Your task to perform on an android device: Turn off the flashlight Image 0: 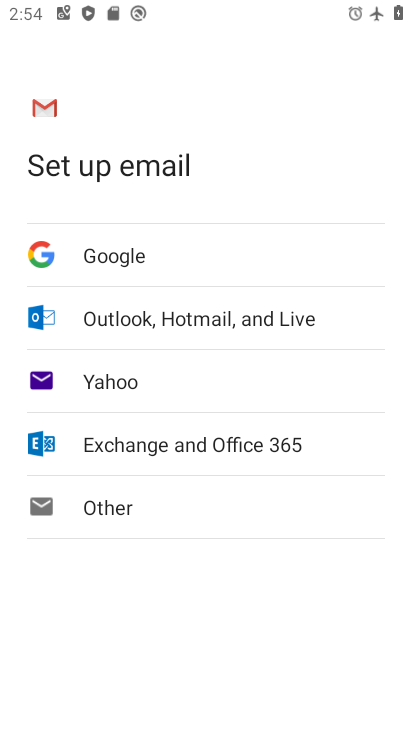
Step 0: press back button
Your task to perform on an android device: Turn off the flashlight Image 1: 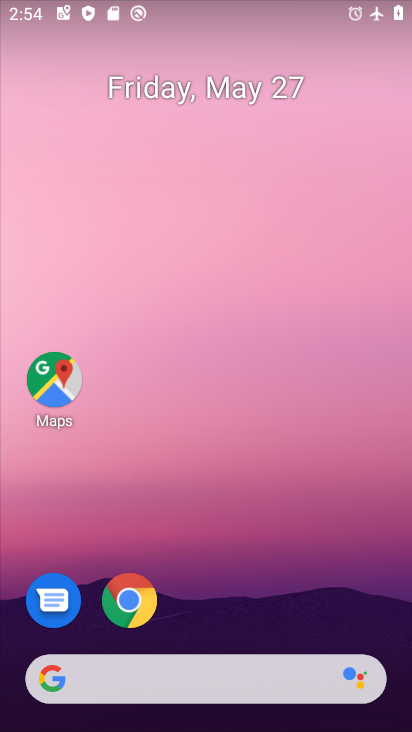
Step 1: drag from (284, 566) to (253, 45)
Your task to perform on an android device: Turn off the flashlight Image 2: 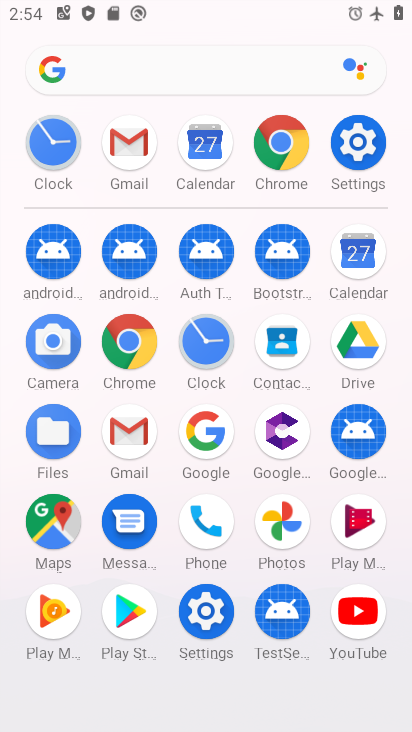
Step 2: click (206, 615)
Your task to perform on an android device: Turn off the flashlight Image 3: 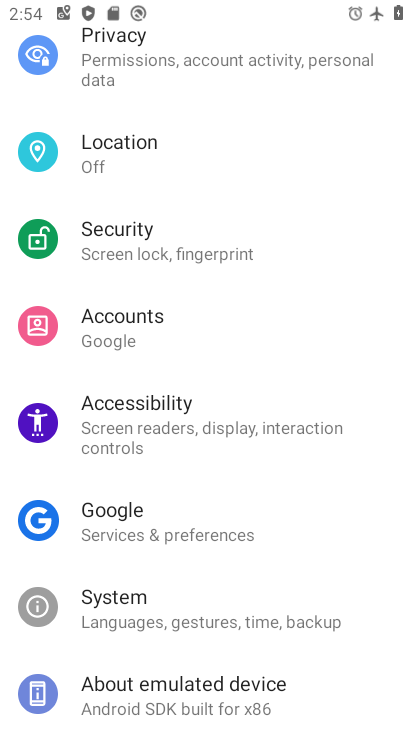
Step 3: drag from (264, 148) to (248, 601)
Your task to perform on an android device: Turn off the flashlight Image 4: 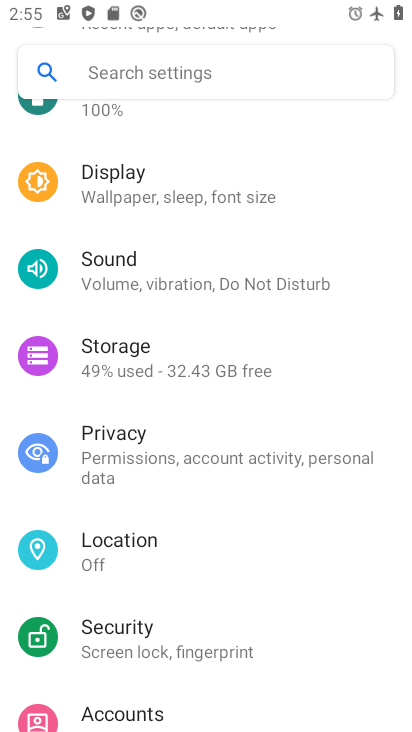
Step 4: drag from (250, 240) to (262, 618)
Your task to perform on an android device: Turn off the flashlight Image 5: 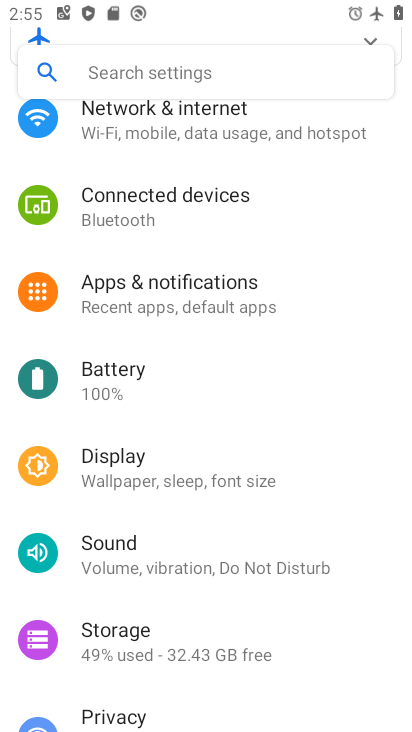
Step 5: drag from (259, 229) to (229, 623)
Your task to perform on an android device: Turn off the flashlight Image 6: 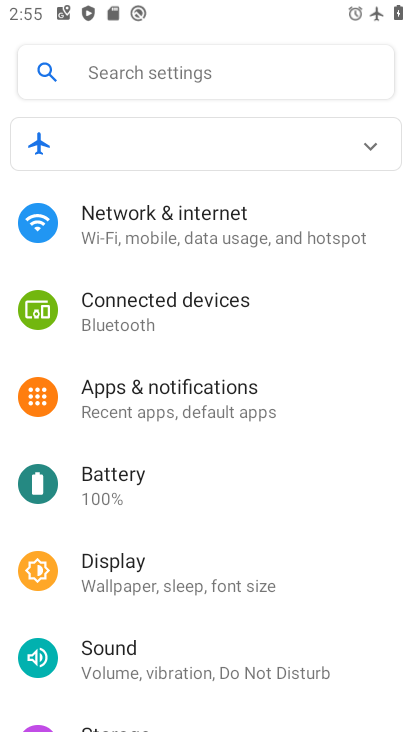
Step 6: click (234, 228)
Your task to perform on an android device: Turn off the flashlight Image 7: 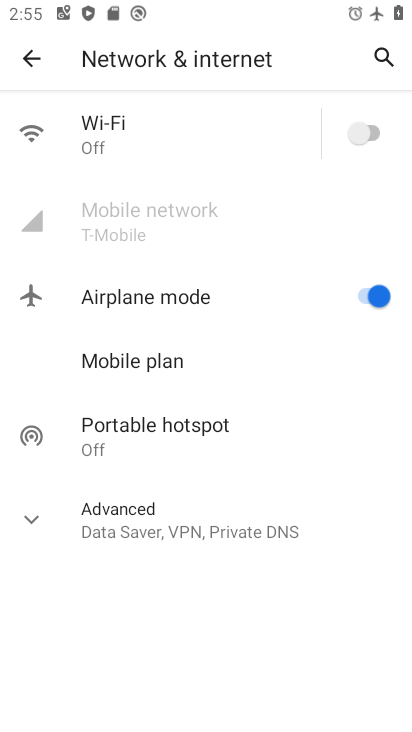
Step 7: click (58, 522)
Your task to perform on an android device: Turn off the flashlight Image 8: 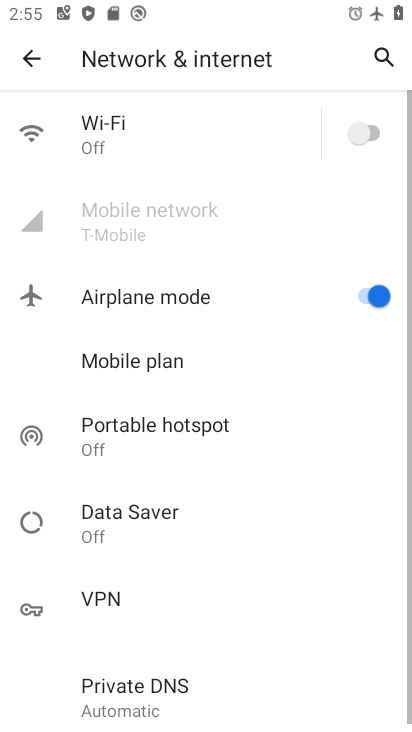
Step 8: task complete